Your task to perform on an android device: Go to ESPN.com Image 0: 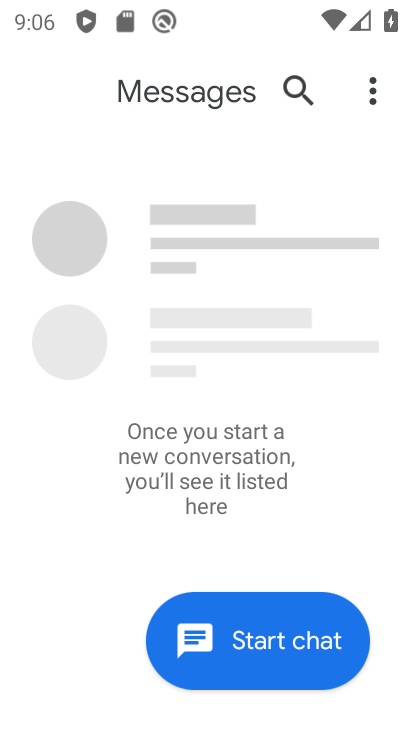
Step 0: press home button
Your task to perform on an android device: Go to ESPN.com Image 1: 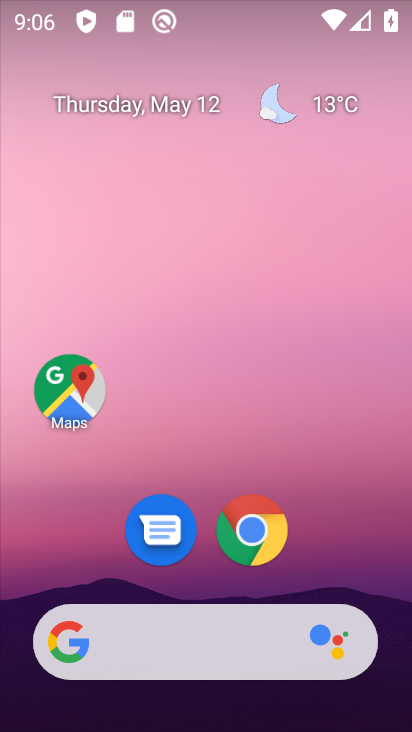
Step 1: drag from (268, 522) to (313, 177)
Your task to perform on an android device: Go to ESPN.com Image 2: 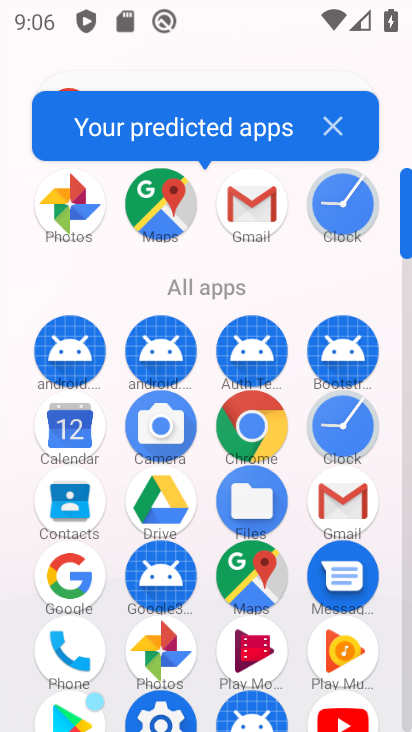
Step 2: click (267, 440)
Your task to perform on an android device: Go to ESPN.com Image 3: 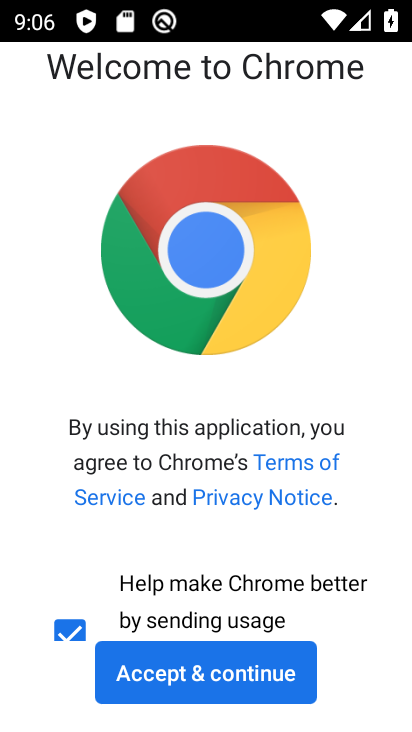
Step 3: click (212, 663)
Your task to perform on an android device: Go to ESPN.com Image 4: 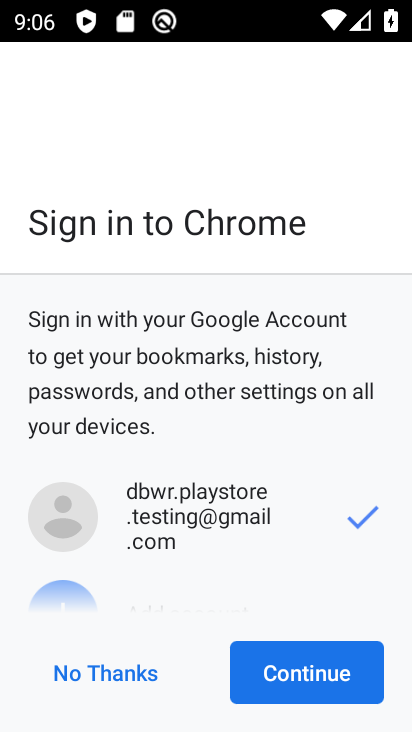
Step 4: click (294, 673)
Your task to perform on an android device: Go to ESPN.com Image 5: 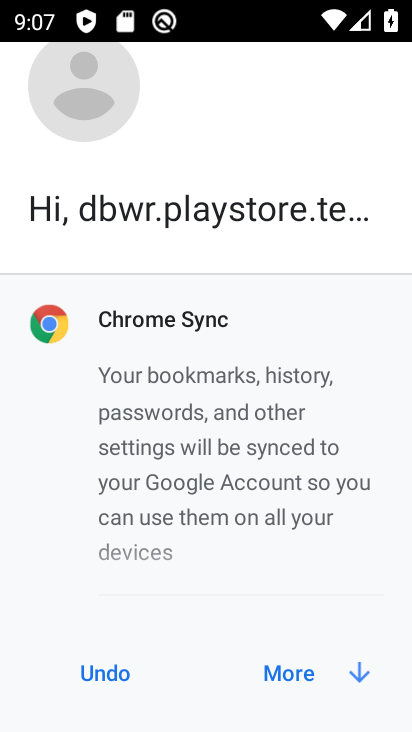
Step 5: click (291, 668)
Your task to perform on an android device: Go to ESPN.com Image 6: 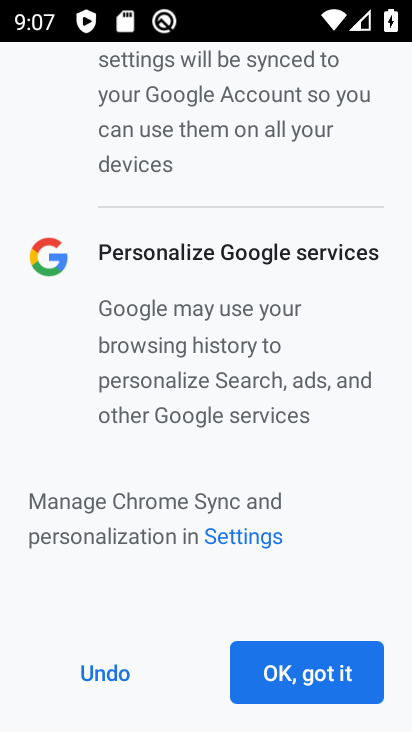
Step 6: click (292, 668)
Your task to perform on an android device: Go to ESPN.com Image 7: 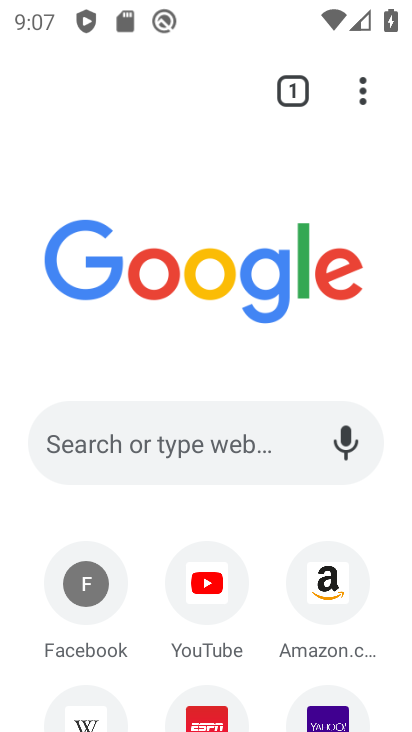
Step 7: drag from (257, 643) to (282, 336)
Your task to perform on an android device: Go to ESPN.com Image 8: 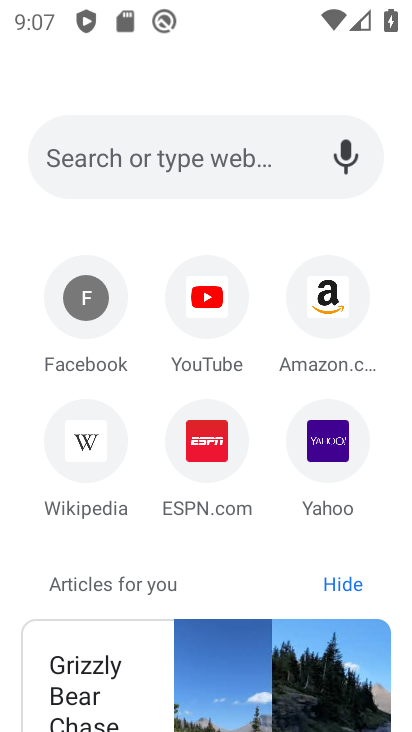
Step 8: click (222, 447)
Your task to perform on an android device: Go to ESPN.com Image 9: 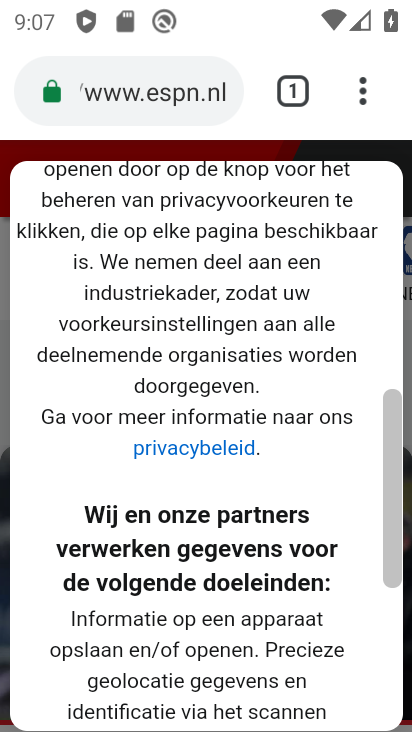
Step 9: task complete